Your task to perform on an android device: Go to Yahoo.com Image 0: 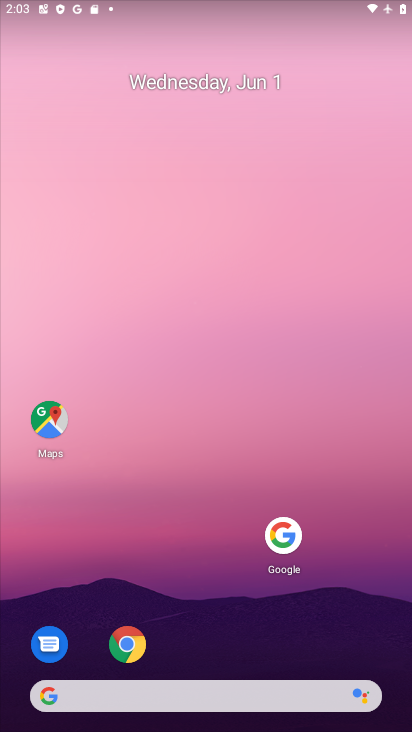
Step 0: press home button
Your task to perform on an android device: Go to Yahoo.com Image 1: 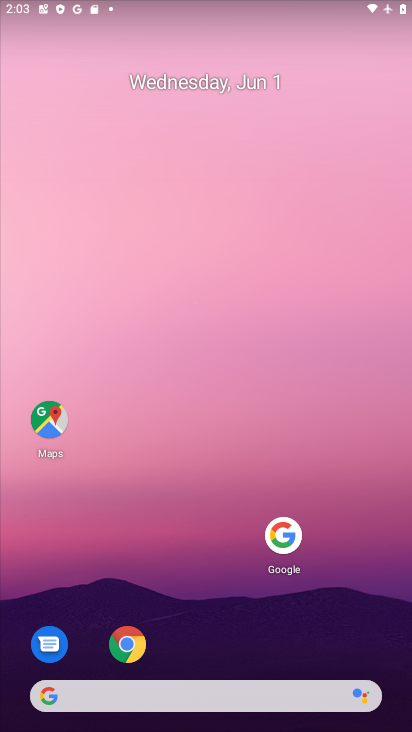
Step 1: click (136, 644)
Your task to perform on an android device: Go to Yahoo.com Image 2: 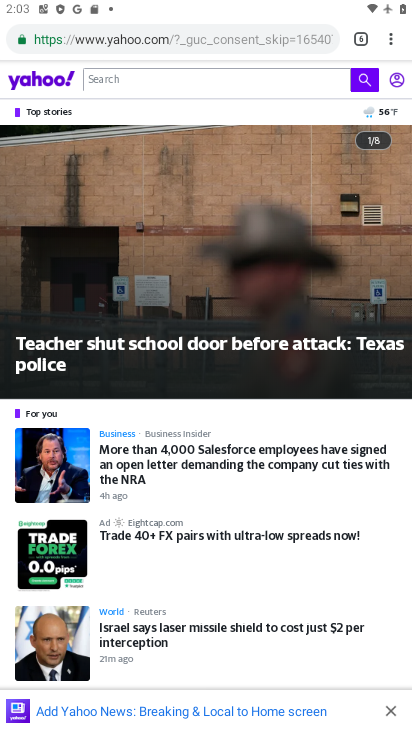
Step 2: task complete